Your task to perform on an android device: Go to calendar. Show me events next week Image 0: 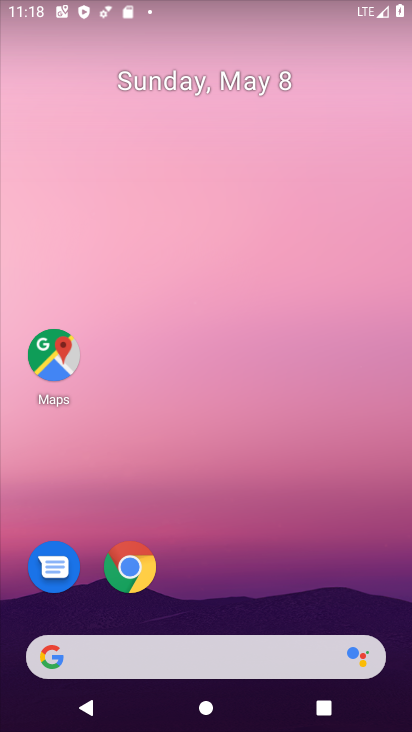
Step 0: drag from (206, 607) to (246, 83)
Your task to perform on an android device: Go to calendar. Show me events next week Image 1: 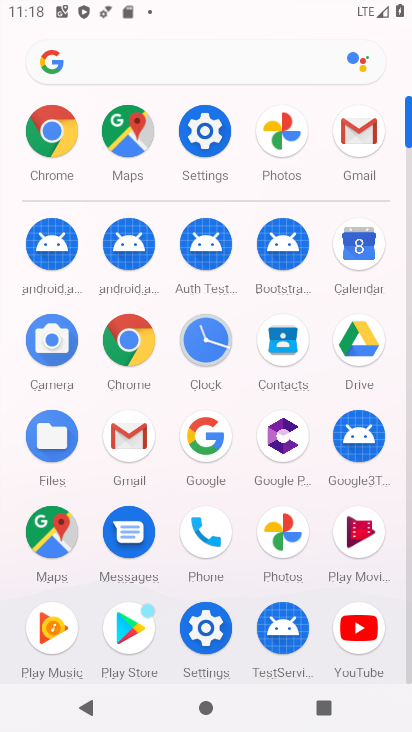
Step 1: click (356, 241)
Your task to perform on an android device: Go to calendar. Show me events next week Image 2: 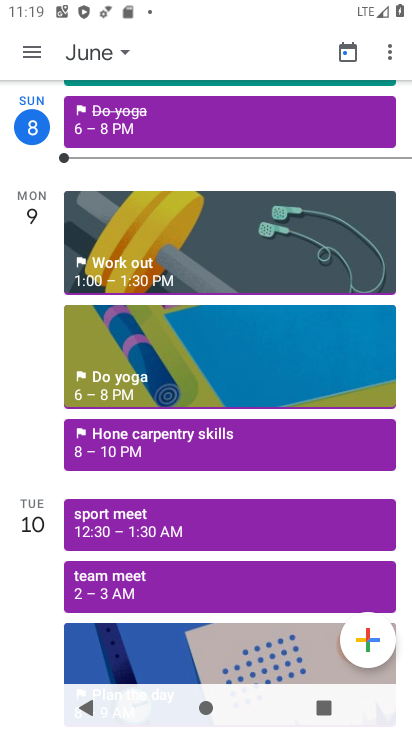
Step 2: click (29, 53)
Your task to perform on an android device: Go to calendar. Show me events next week Image 3: 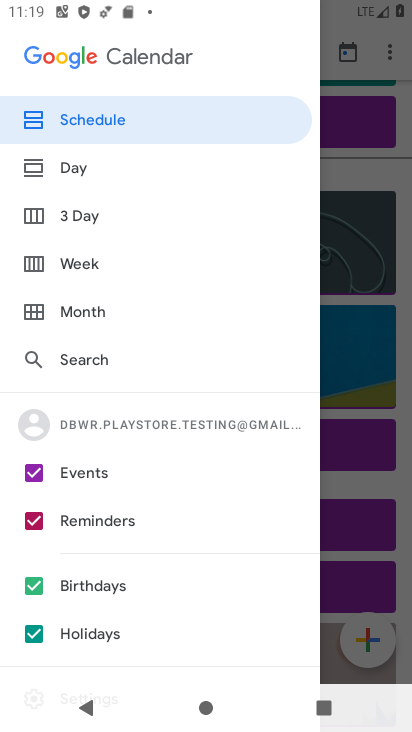
Step 3: click (32, 515)
Your task to perform on an android device: Go to calendar. Show me events next week Image 4: 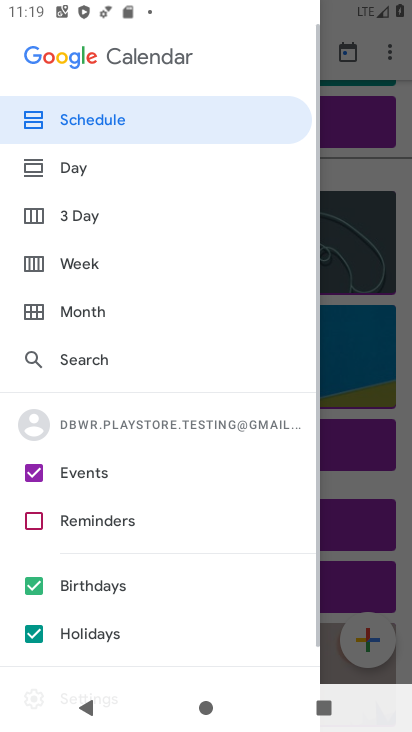
Step 4: click (30, 592)
Your task to perform on an android device: Go to calendar. Show me events next week Image 5: 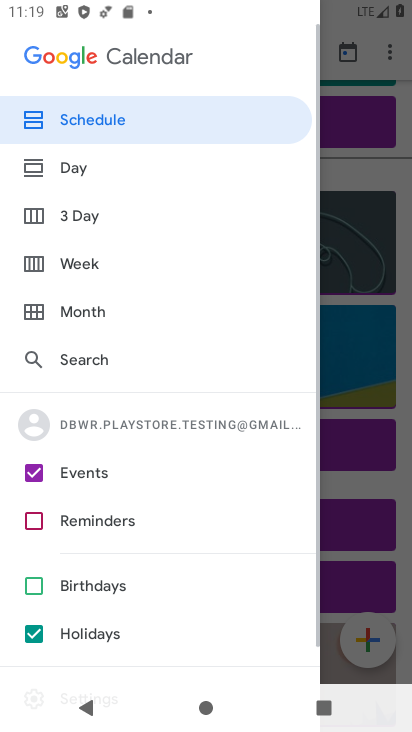
Step 5: click (36, 637)
Your task to perform on an android device: Go to calendar. Show me events next week Image 6: 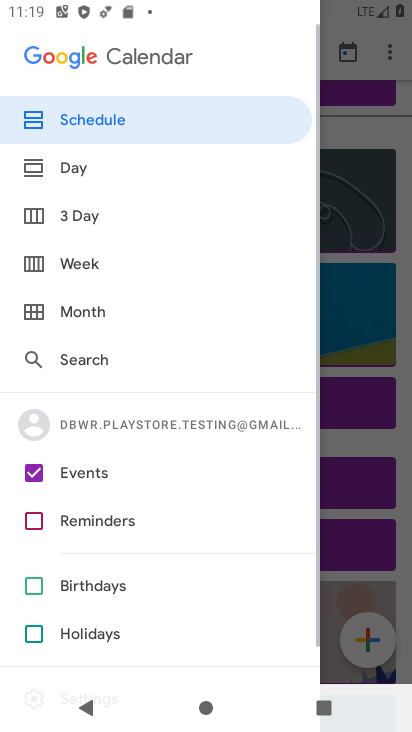
Step 6: click (52, 265)
Your task to perform on an android device: Go to calendar. Show me events next week Image 7: 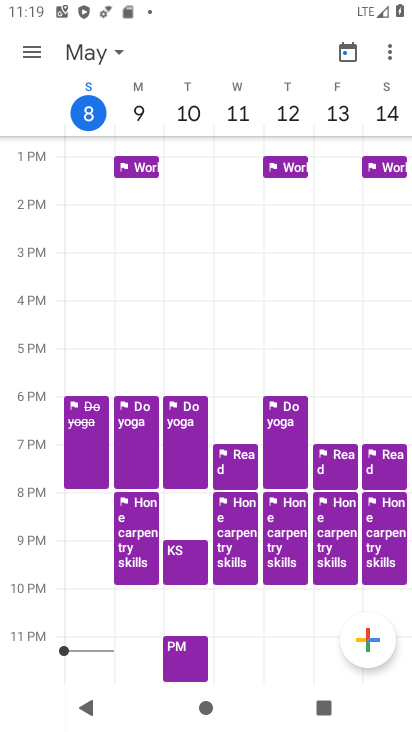
Step 7: drag from (379, 110) to (13, 113)
Your task to perform on an android device: Go to calendar. Show me events next week Image 8: 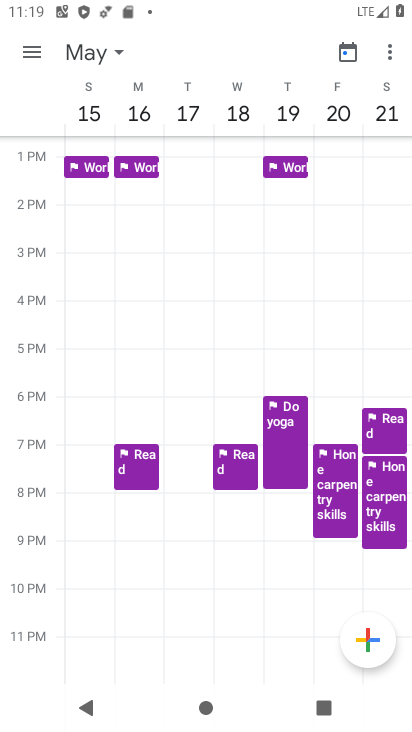
Step 8: click (83, 112)
Your task to perform on an android device: Go to calendar. Show me events next week Image 9: 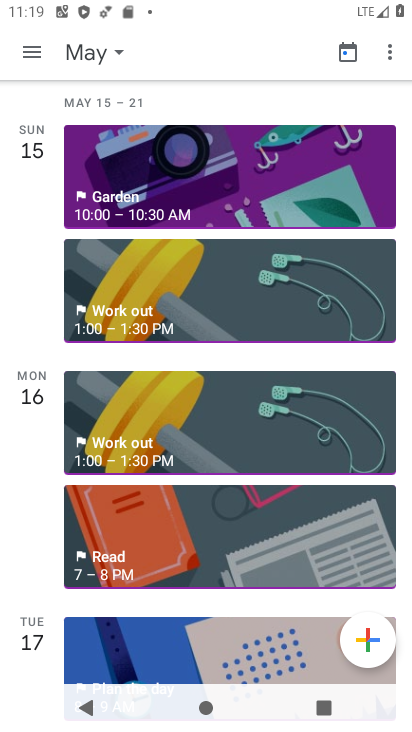
Step 9: task complete